Your task to perform on an android device: open app "Indeed Job Search" Image 0: 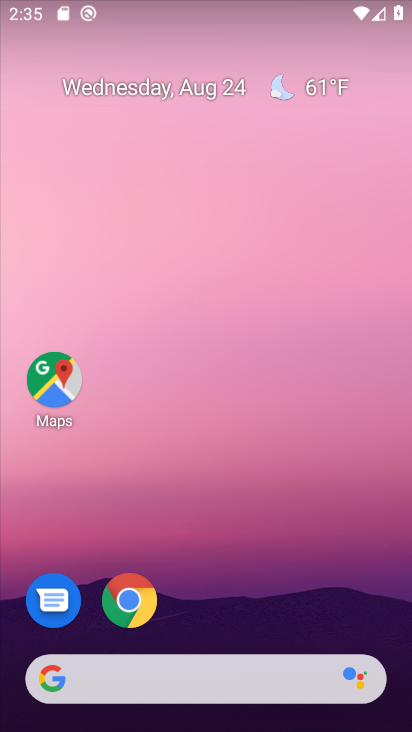
Step 0: drag from (248, 564) to (301, 66)
Your task to perform on an android device: open app "Indeed Job Search" Image 1: 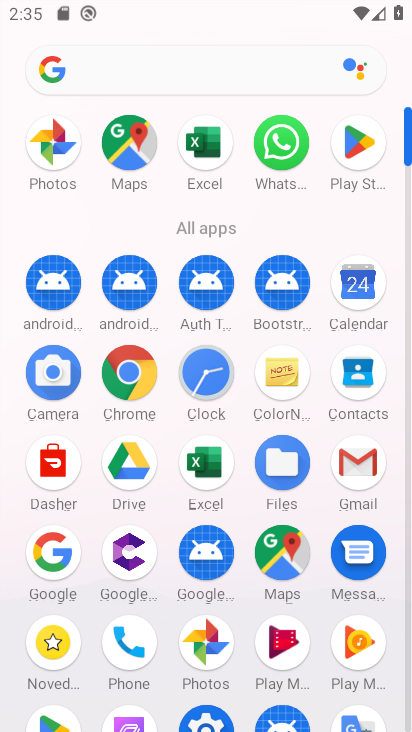
Step 1: click (357, 145)
Your task to perform on an android device: open app "Indeed Job Search" Image 2: 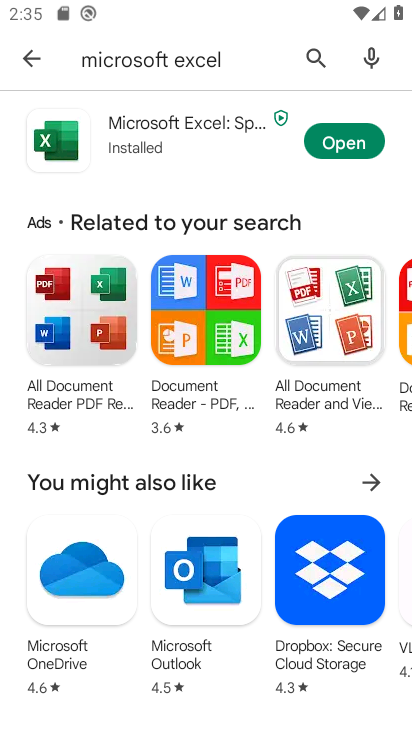
Step 2: click (305, 55)
Your task to perform on an android device: open app "Indeed Job Search" Image 3: 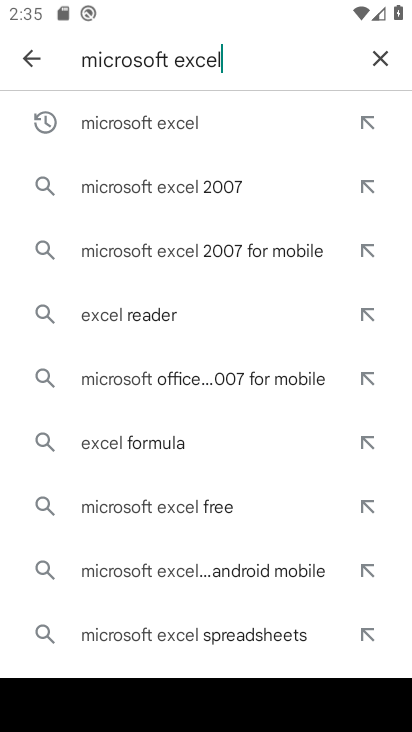
Step 3: click (375, 52)
Your task to perform on an android device: open app "Indeed Job Search" Image 4: 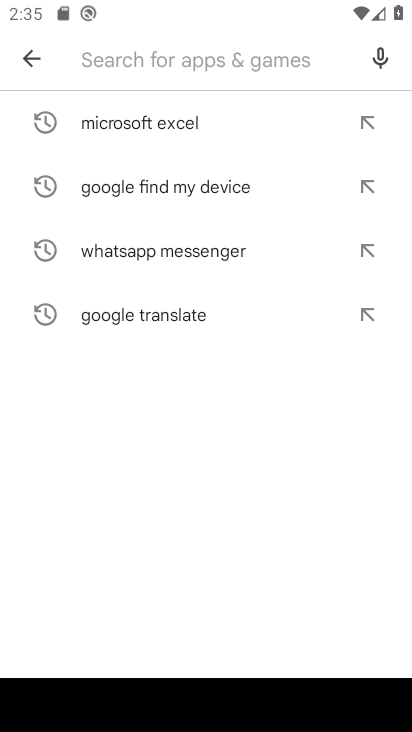
Step 4: click (168, 59)
Your task to perform on an android device: open app "Indeed Job Search" Image 5: 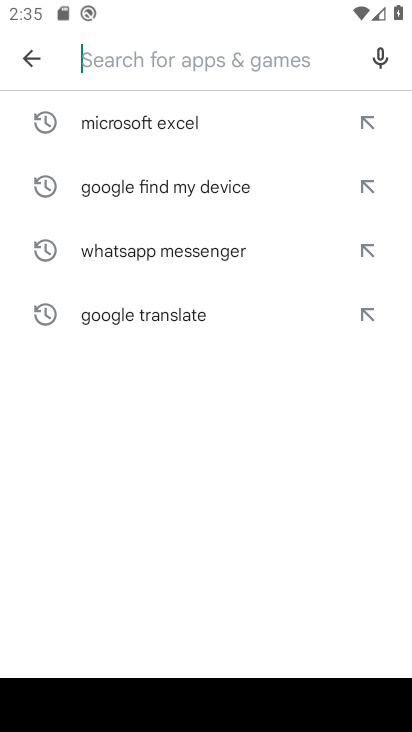
Step 5: type "Indeed Job Search"
Your task to perform on an android device: open app "Indeed Job Search" Image 6: 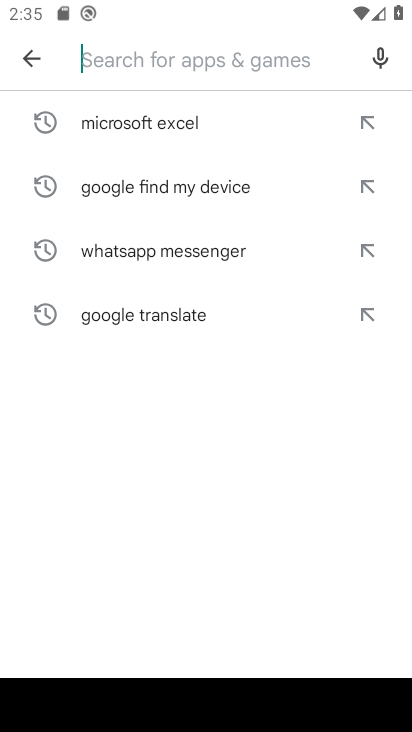
Step 6: click (209, 524)
Your task to perform on an android device: open app "Indeed Job Search" Image 7: 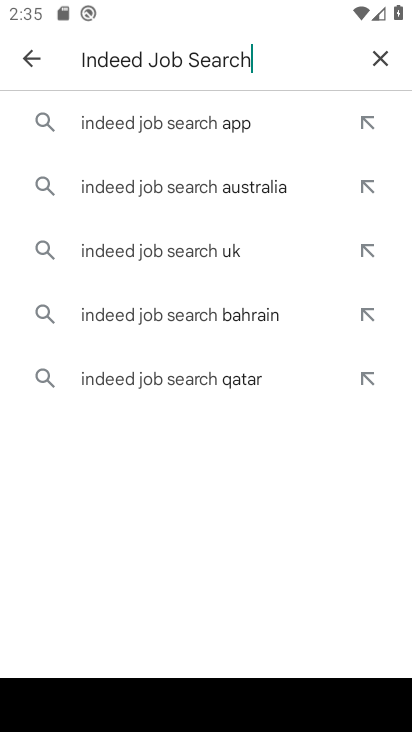
Step 7: click (173, 131)
Your task to perform on an android device: open app "Indeed Job Search" Image 8: 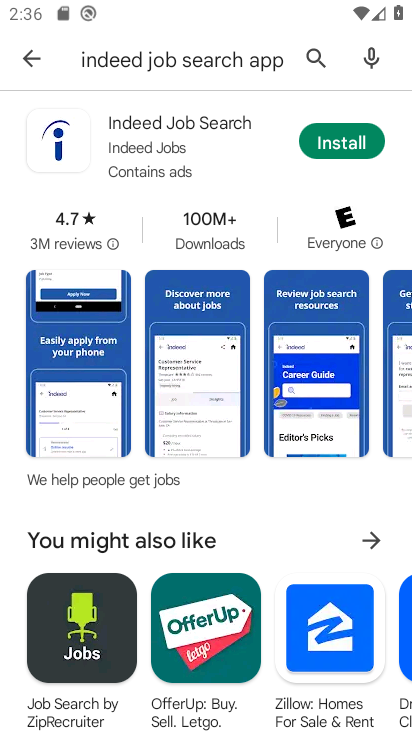
Step 8: task complete